Your task to perform on an android device: clear all cookies in the chrome app Image 0: 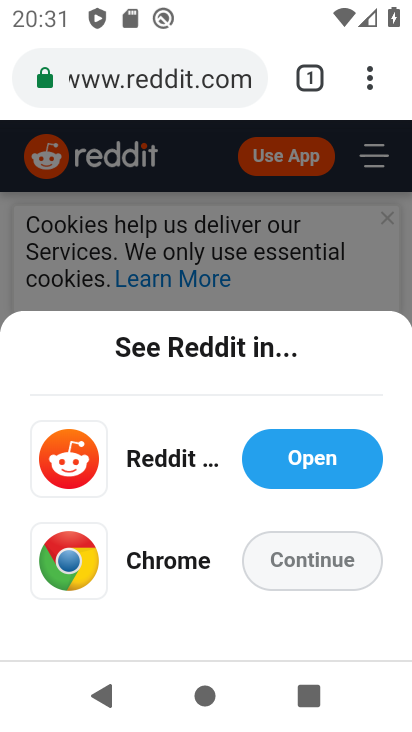
Step 0: press home button
Your task to perform on an android device: clear all cookies in the chrome app Image 1: 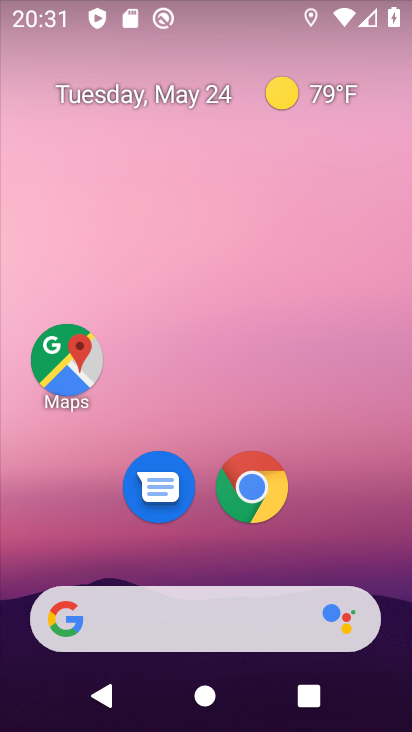
Step 1: click (256, 480)
Your task to perform on an android device: clear all cookies in the chrome app Image 2: 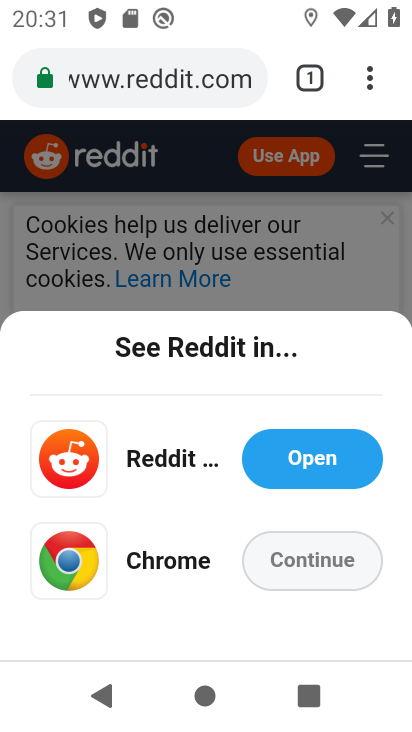
Step 2: drag from (369, 78) to (105, 557)
Your task to perform on an android device: clear all cookies in the chrome app Image 3: 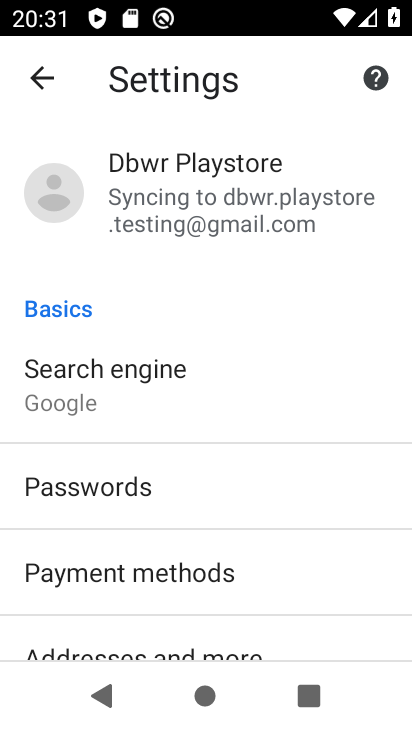
Step 3: drag from (303, 625) to (297, 248)
Your task to perform on an android device: clear all cookies in the chrome app Image 4: 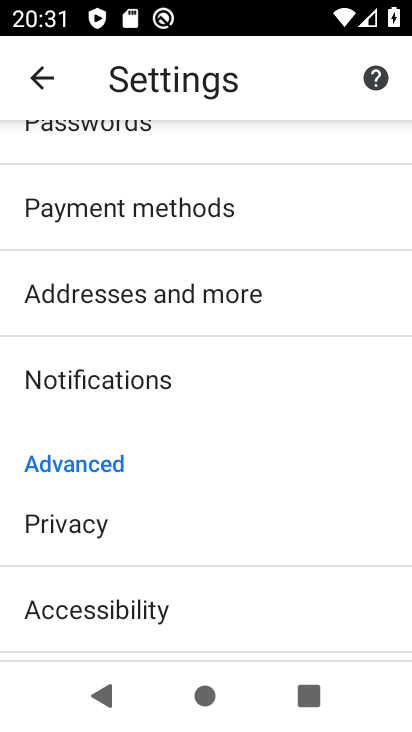
Step 4: click (66, 527)
Your task to perform on an android device: clear all cookies in the chrome app Image 5: 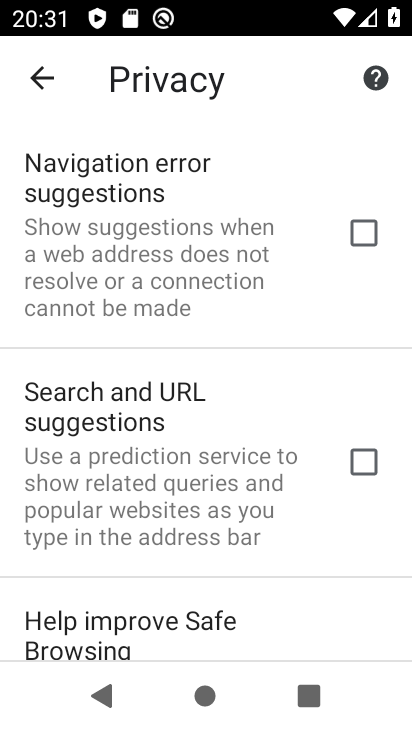
Step 5: drag from (284, 609) to (292, 260)
Your task to perform on an android device: clear all cookies in the chrome app Image 6: 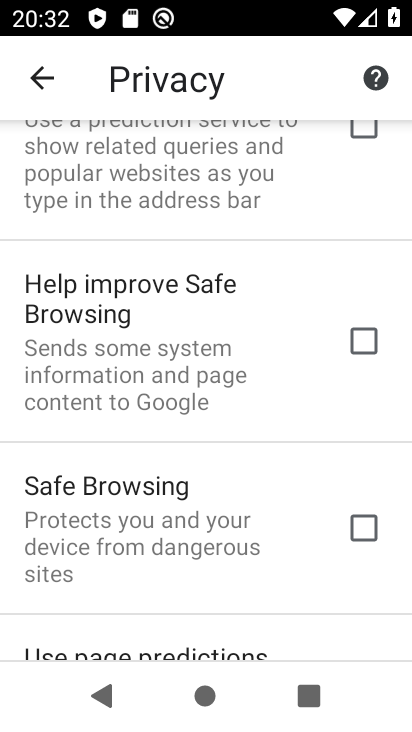
Step 6: drag from (298, 613) to (290, 344)
Your task to perform on an android device: clear all cookies in the chrome app Image 7: 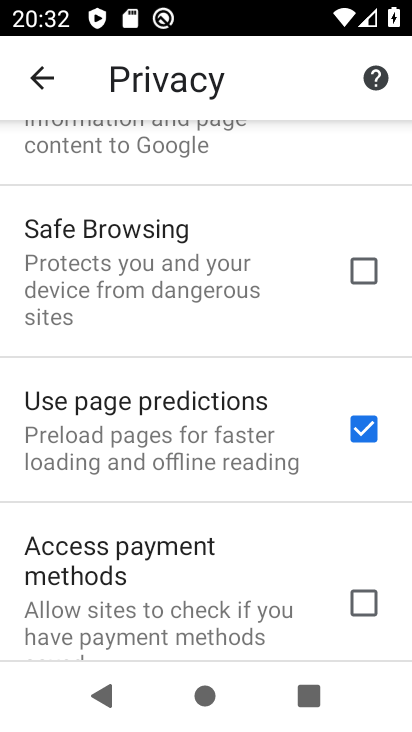
Step 7: drag from (273, 586) to (275, 218)
Your task to perform on an android device: clear all cookies in the chrome app Image 8: 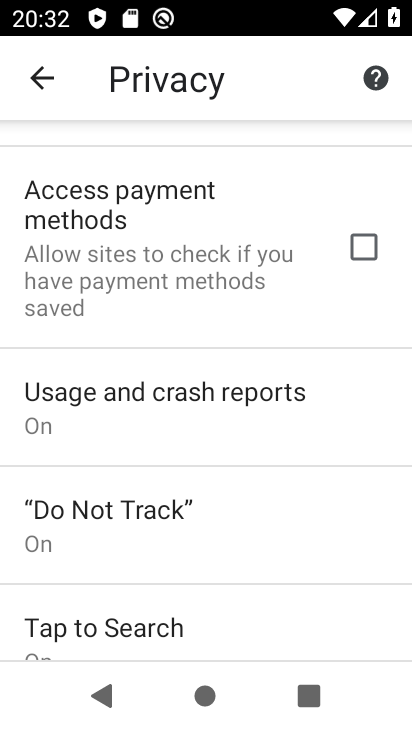
Step 8: drag from (206, 570) to (215, 237)
Your task to perform on an android device: clear all cookies in the chrome app Image 9: 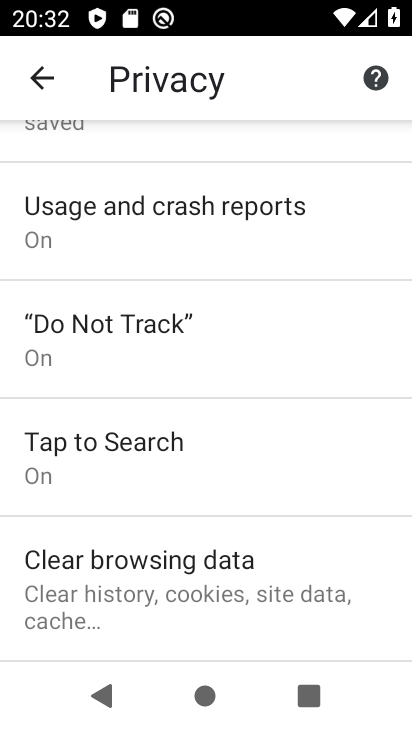
Step 9: click (154, 585)
Your task to perform on an android device: clear all cookies in the chrome app Image 10: 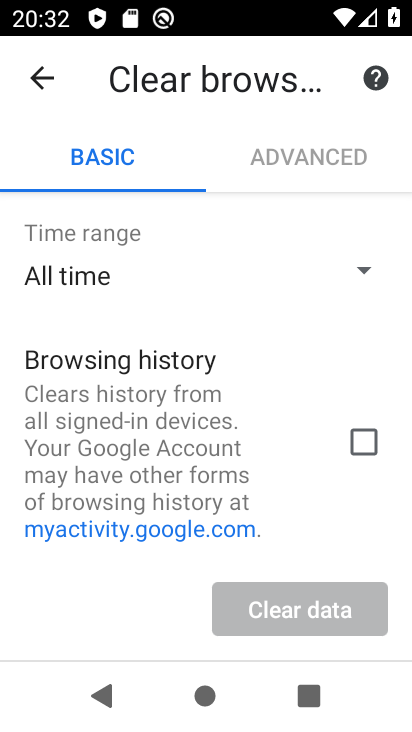
Step 10: drag from (255, 485) to (261, 332)
Your task to perform on an android device: clear all cookies in the chrome app Image 11: 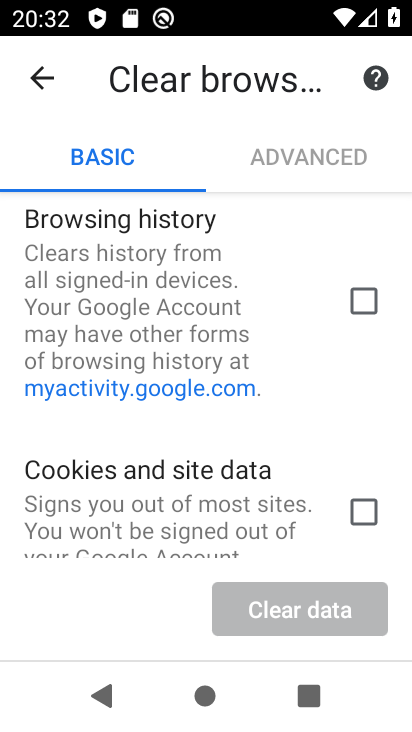
Step 11: click (367, 515)
Your task to perform on an android device: clear all cookies in the chrome app Image 12: 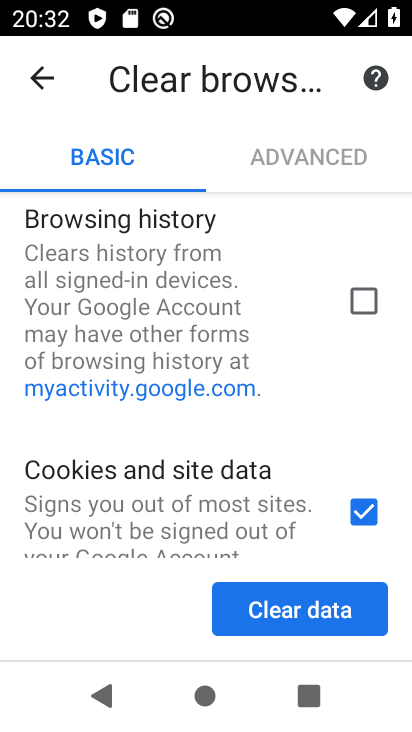
Step 12: click (315, 620)
Your task to perform on an android device: clear all cookies in the chrome app Image 13: 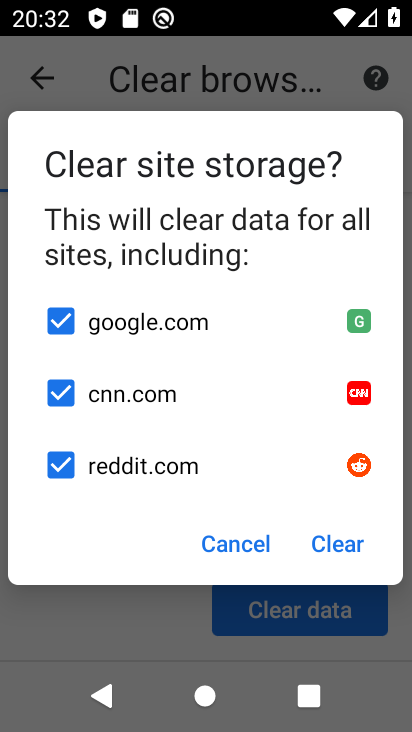
Step 13: click (335, 544)
Your task to perform on an android device: clear all cookies in the chrome app Image 14: 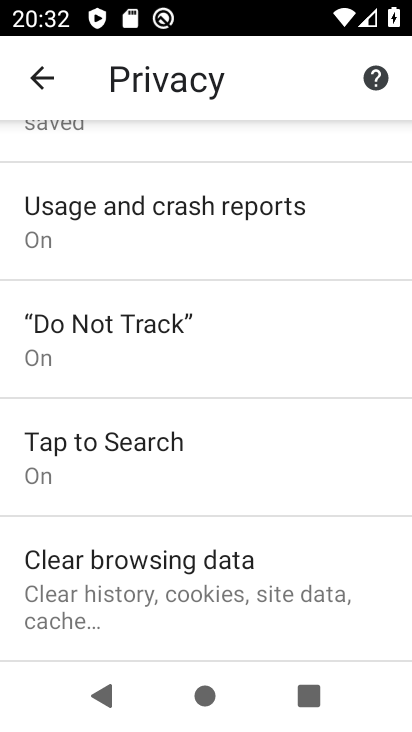
Step 14: task complete